Your task to perform on an android device: Open Google Maps Image 0: 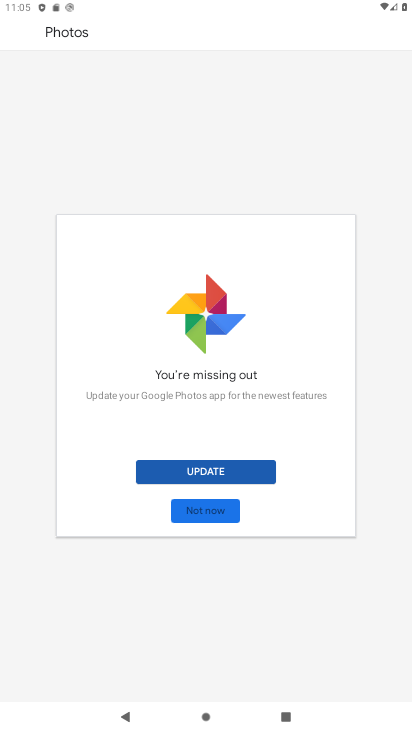
Step 0: press home button
Your task to perform on an android device: Open Google Maps Image 1: 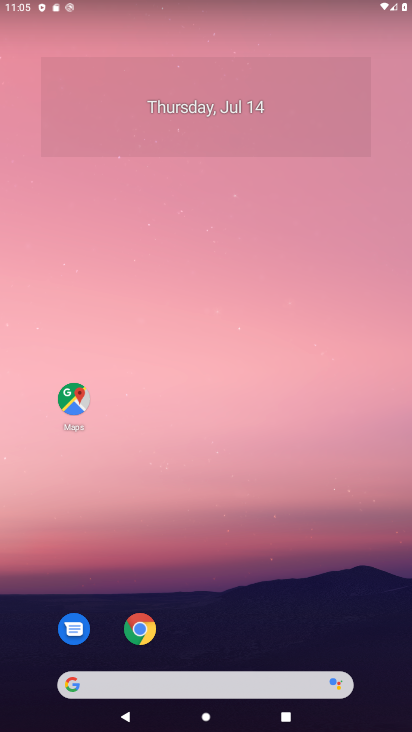
Step 1: drag from (217, 647) to (267, 49)
Your task to perform on an android device: Open Google Maps Image 2: 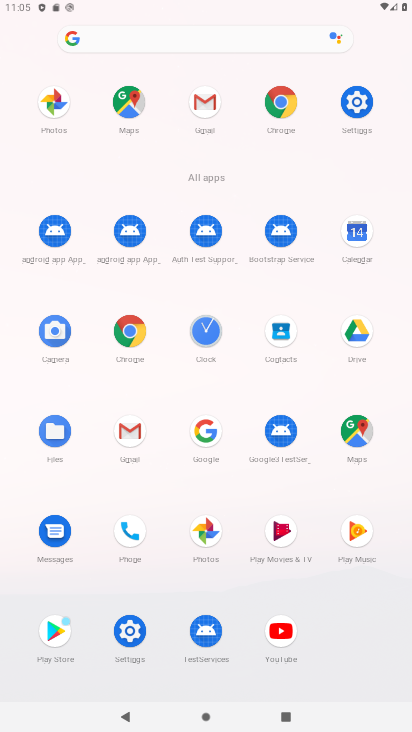
Step 2: click (366, 423)
Your task to perform on an android device: Open Google Maps Image 3: 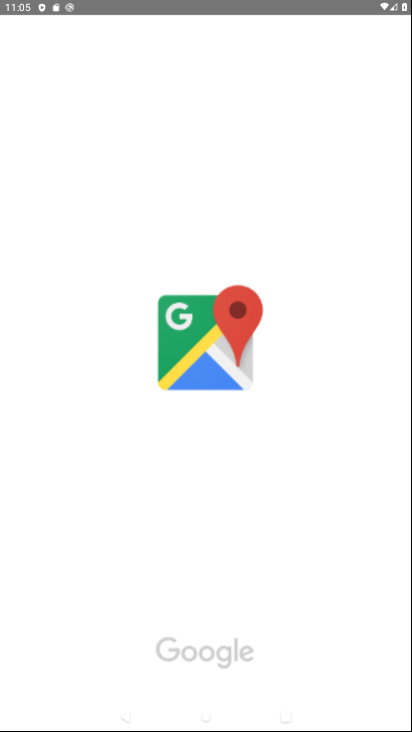
Step 3: task complete